Your task to perform on an android device: toggle location history Image 0: 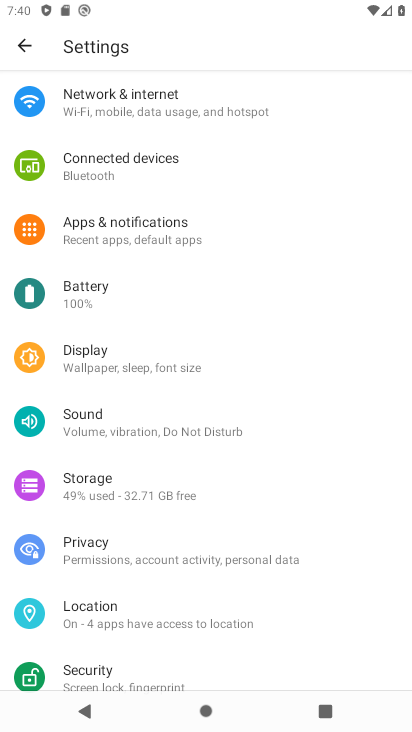
Step 0: click (107, 602)
Your task to perform on an android device: toggle location history Image 1: 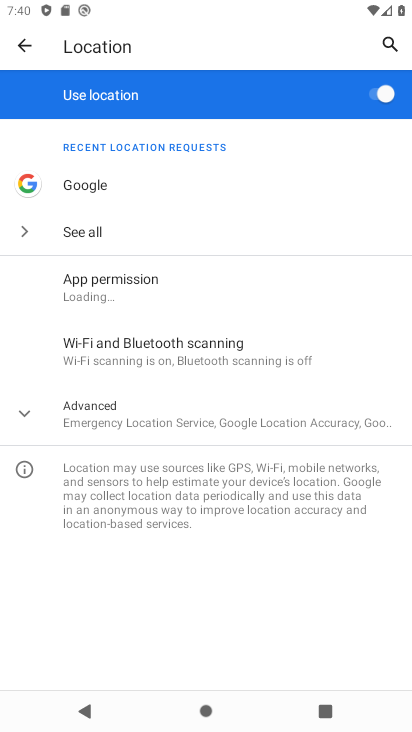
Step 1: click (43, 418)
Your task to perform on an android device: toggle location history Image 2: 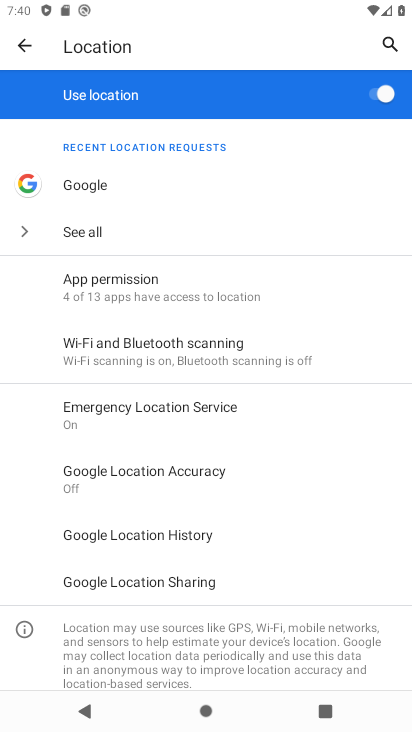
Step 2: click (95, 531)
Your task to perform on an android device: toggle location history Image 3: 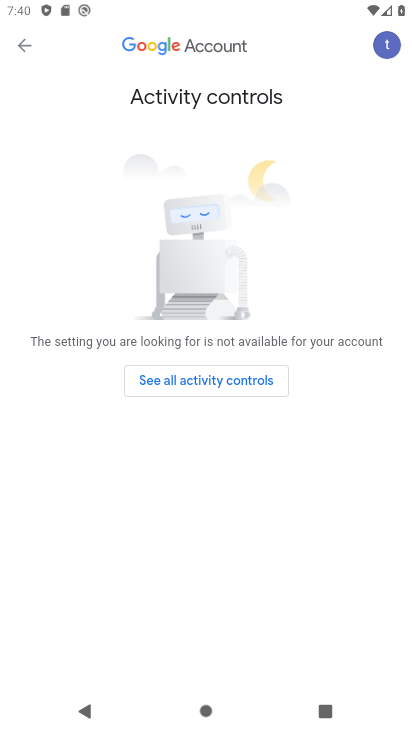
Step 3: task complete